Your task to perform on an android device: change the clock display to digital Image 0: 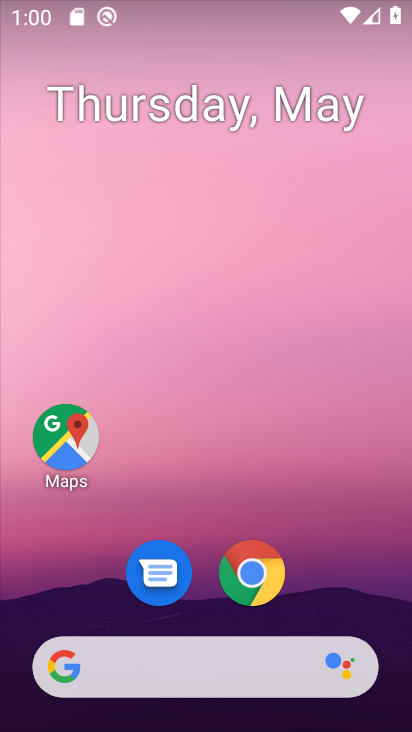
Step 0: drag from (186, 609) to (203, 349)
Your task to perform on an android device: change the clock display to digital Image 1: 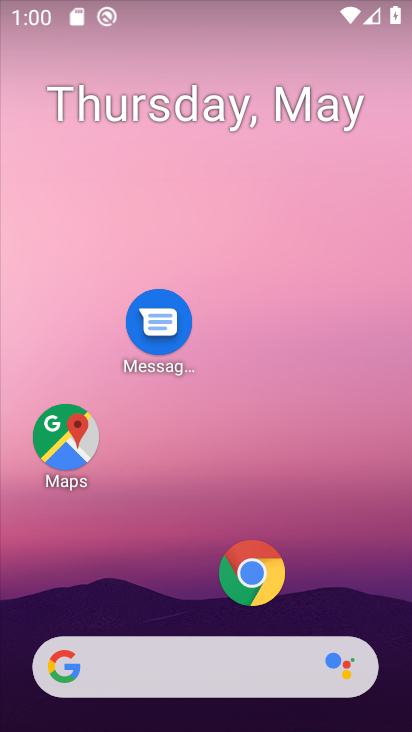
Step 1: click (364, 386)
Your task to perform on an android device: change the clock display to digital Image 2: 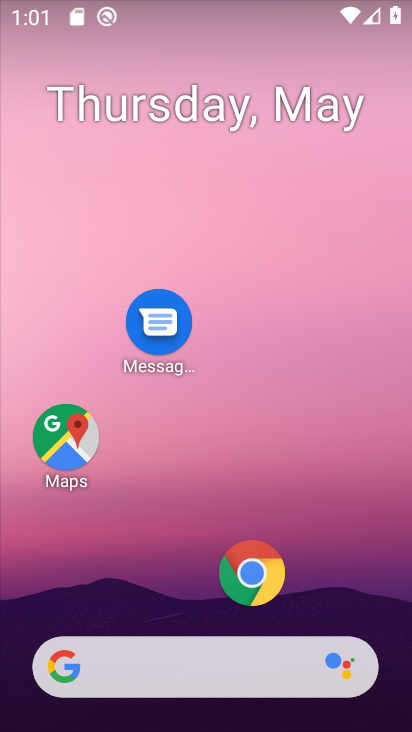
Step 2: drag from (212, 540) to (264, 108)
Your task to perform on an android device: change the clock display to digital Image 3: 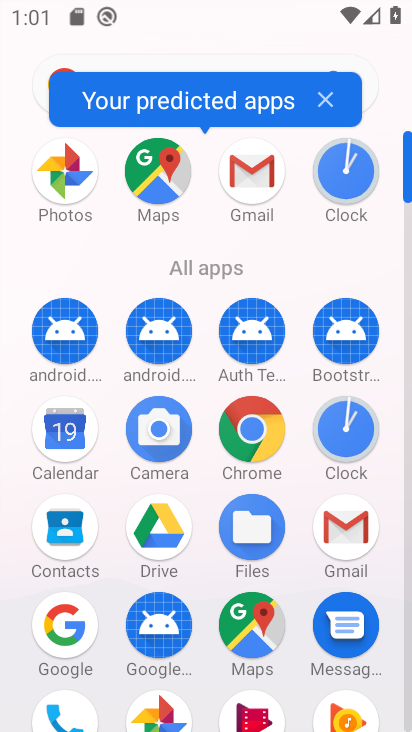
Step 3: click (332, 429)
Your task to perform on an android device: change the clock display to digital Image 4: 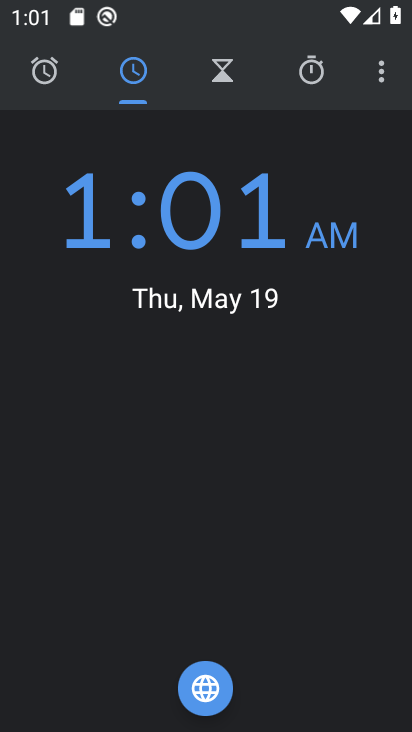
Step 4: click (386, 87)
Your task to perform on an android device: change the clock display to digital Image 5: 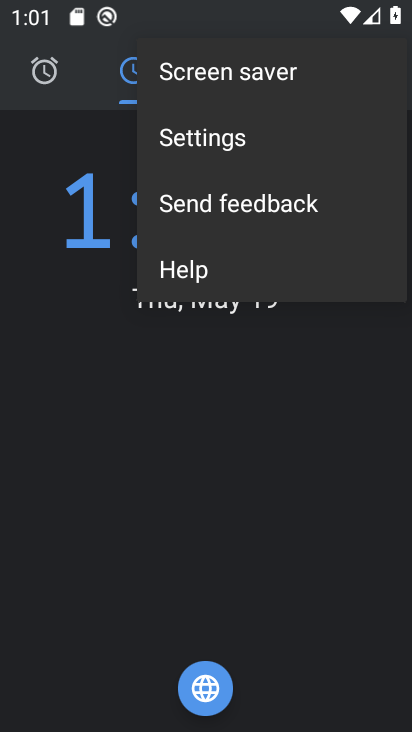
Step 5: click (260, 138)
Your task to perform on an android device: change the clock display to digital Image 6: 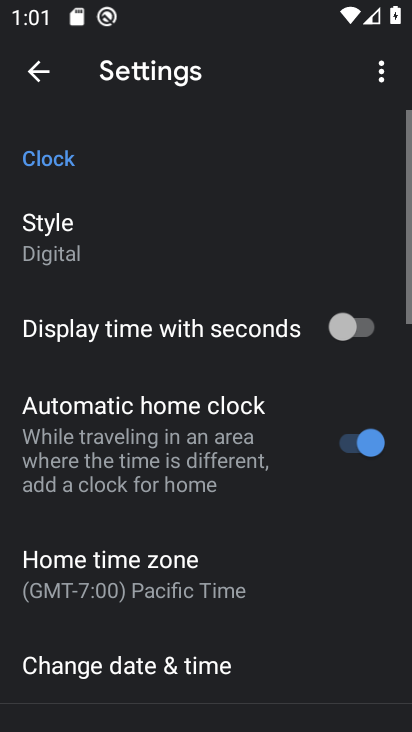
Step 6: click (107, 239)
Your task to perform on an android device: change the clock display to digital Image 7: 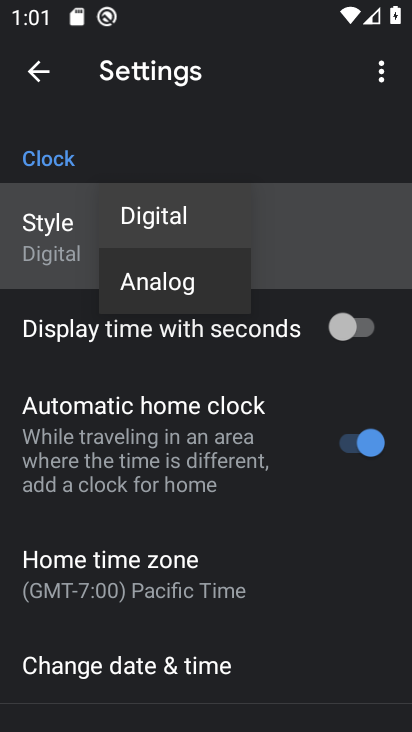
Step 7: task complete